Your task to perform on an android device: Go to ESPN.com Image 0: 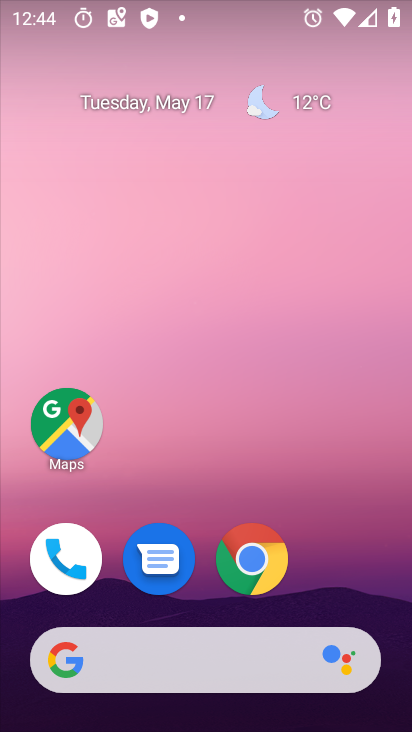
Step 0: click (241, 567)
Your task to perform on an android device: Go to ESPN.com Image 1: 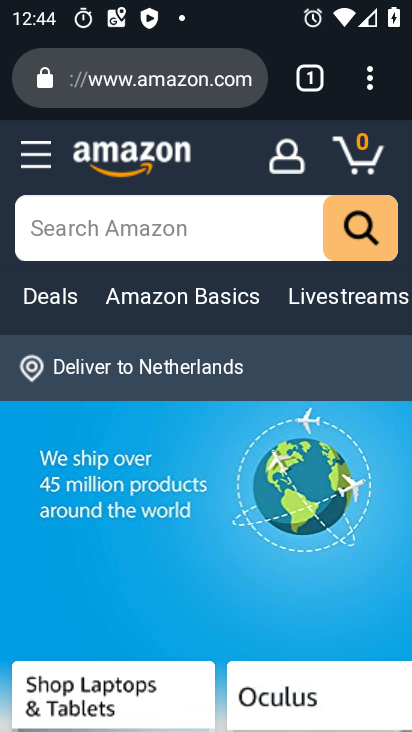
Step 1: click (126, 84)
Your task to perform on an android device: Go to ESPN.com Image 2: 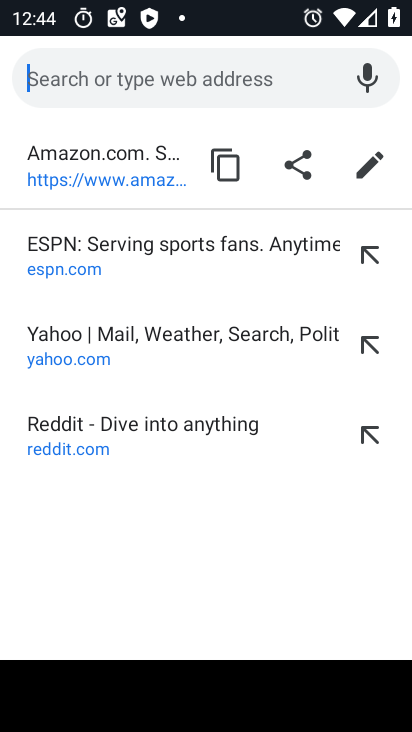
Step 2: click (55, 269)
Your task to perform on an android device: Go to ESPN.com Image 3: 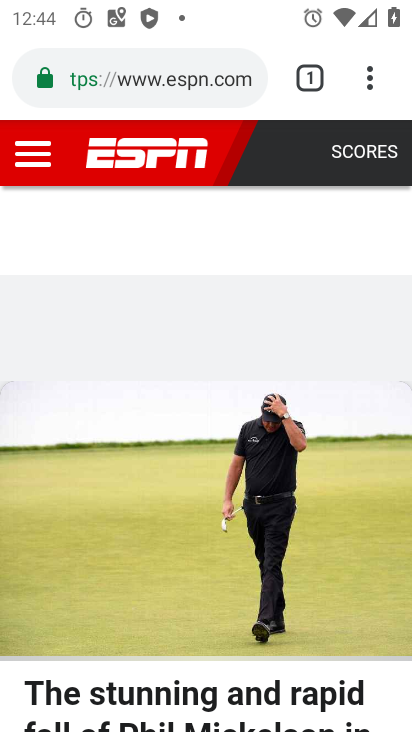
Step 3: task complete